Your task to perform on an android device: set the stopwatch Image 0: 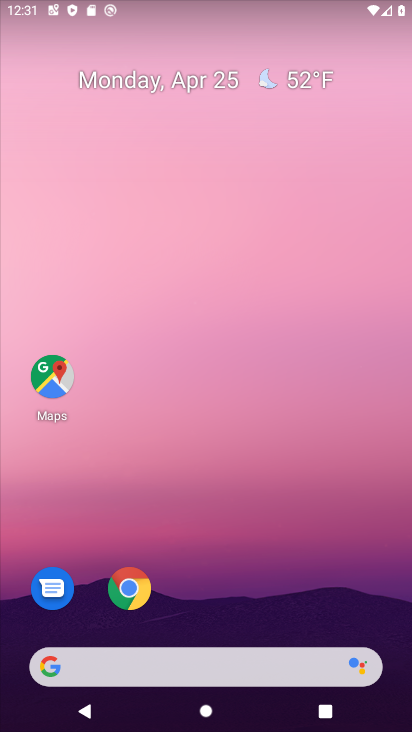
Step 0: drag from (207, 572) to (311, 80)
Your task to perform on an android device: set the stopwatch Image 1: 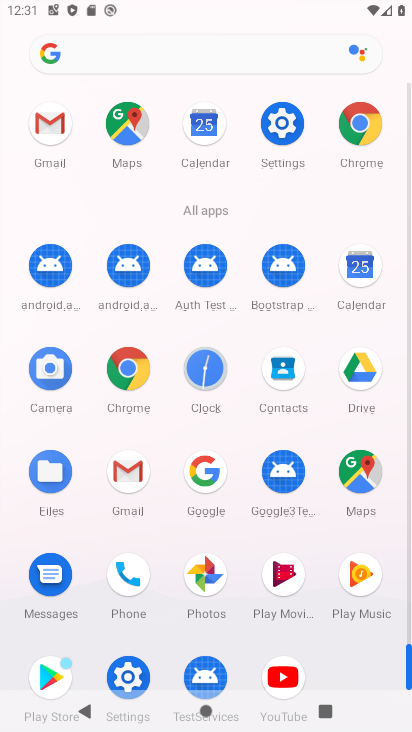
Step 1: click (215, 372)
Your task to perform on an android device: set the stopwatch Image 2: 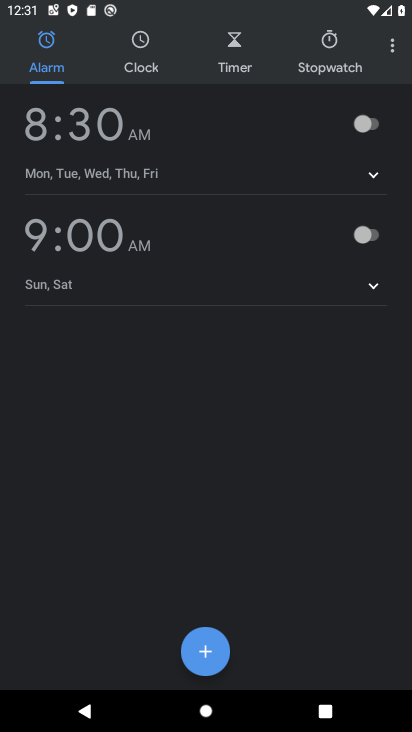
Step 2: click (322, 52)
Your task to perform on an android device: set the stopwatch Image 3: 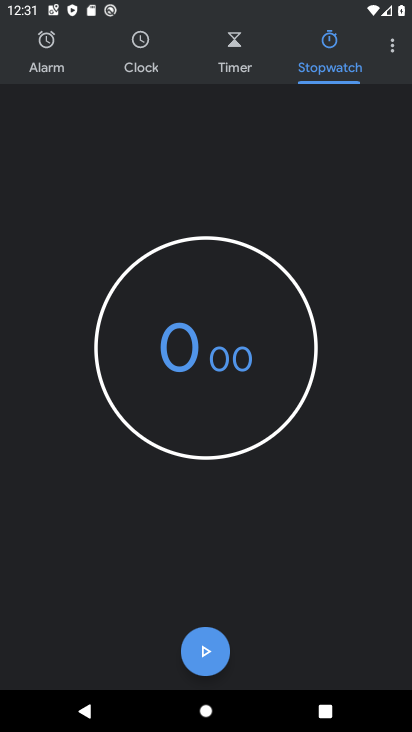
Step 3: click (212, 660)
Your task to perform on an android device: set the stopwatch Image 4: 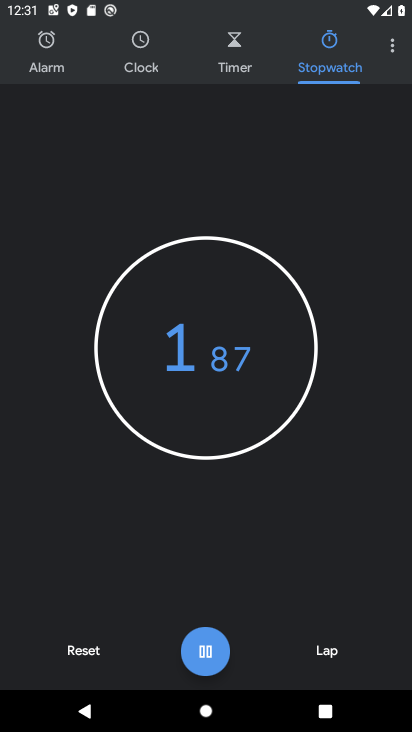
Step 4: task complete